Your task to perform on an android device: Open Reddit.com Image 0: 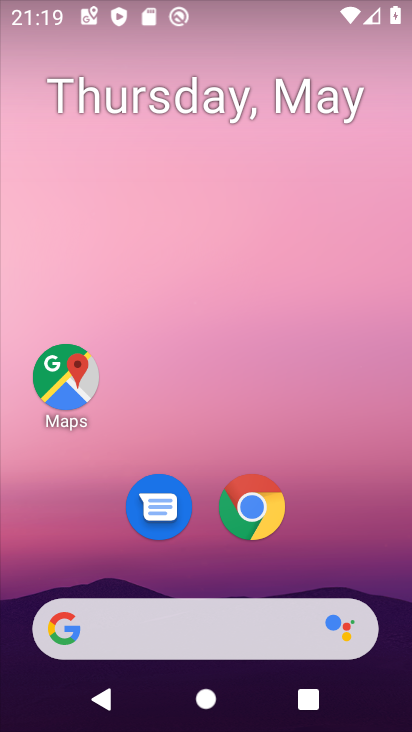
Step 0: drag from (247, 631) to (203, 370)
Your task to perform on an android device: Open Reddit.com Image 1: 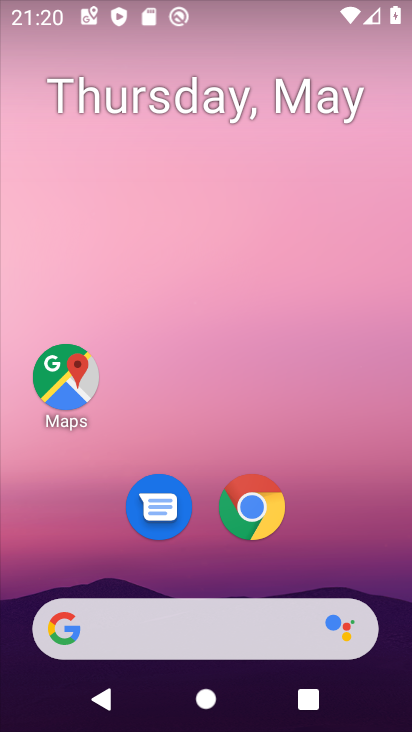
Step 1: drag from (226, 657) to (180, 330)
Your task to perform on an android device: Open Reddit.com Image 2: 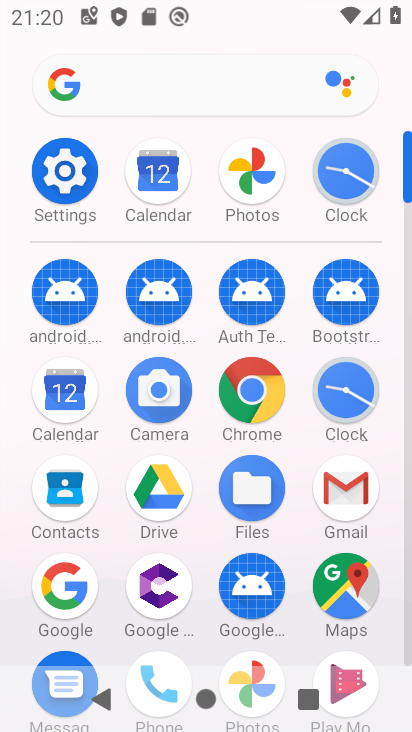
Step 2: click (270, 408)
Your task to perform on an android device: Open Reddit.com Image 3: 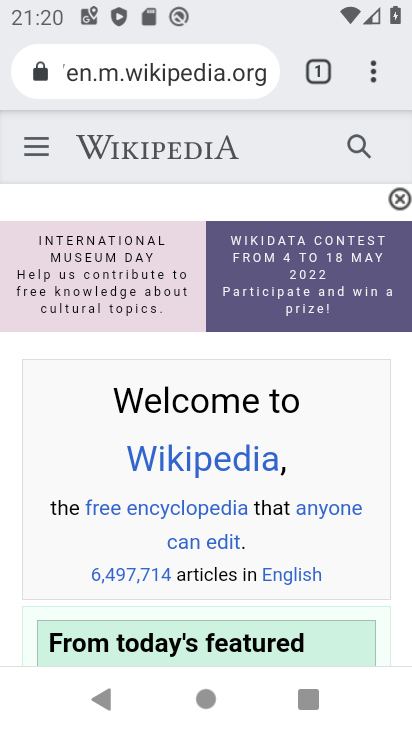
Step 3: click (151, 79)
Your task to perform on an android device: Open Reddit.com Image 4: 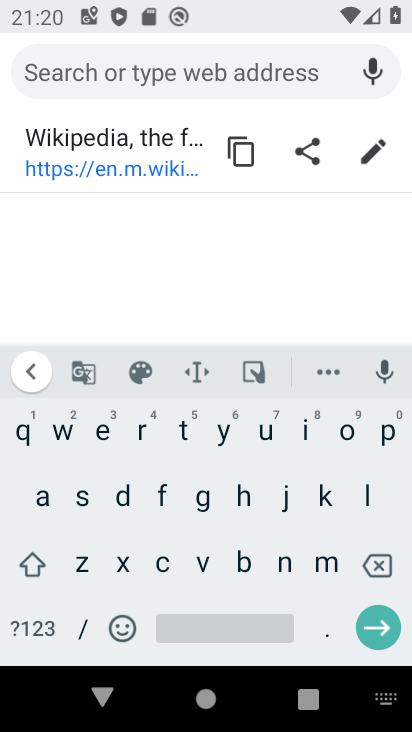
Step 4: click (140, 439)
Your task to perform on an android device: Open Reddit.com Image 5: 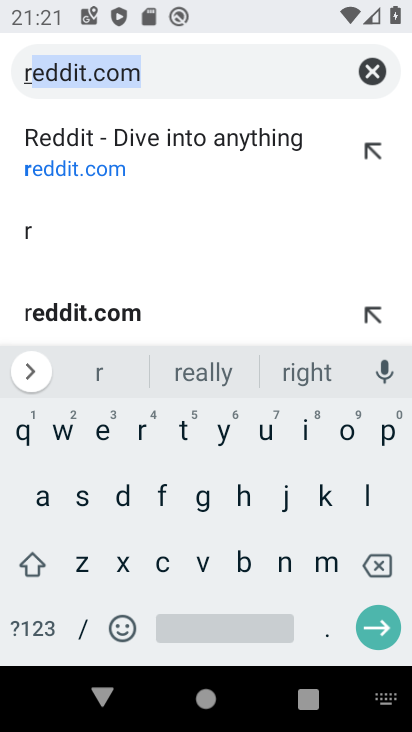
Step 5: click (175, 75)
Your task to perform on an android device: Open Reddit.com Image 6: 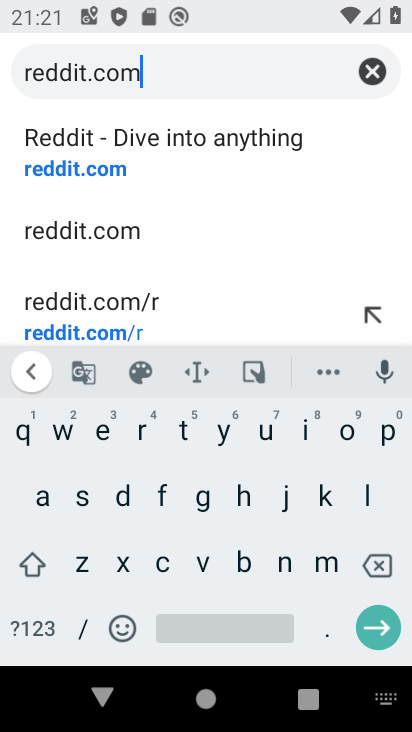
Step 6: click (386, 622)
Your task to perform on an android device: Open Reddit.com Image 7: 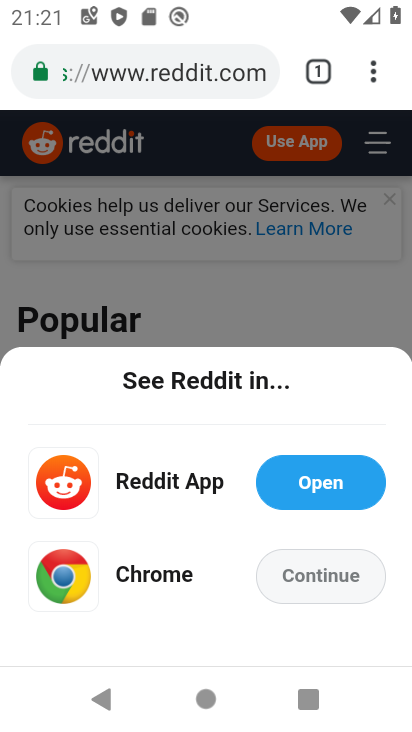
Step 7: click (318, 574)
Your task to perform on an android device: Open Reddit.com Image 8: 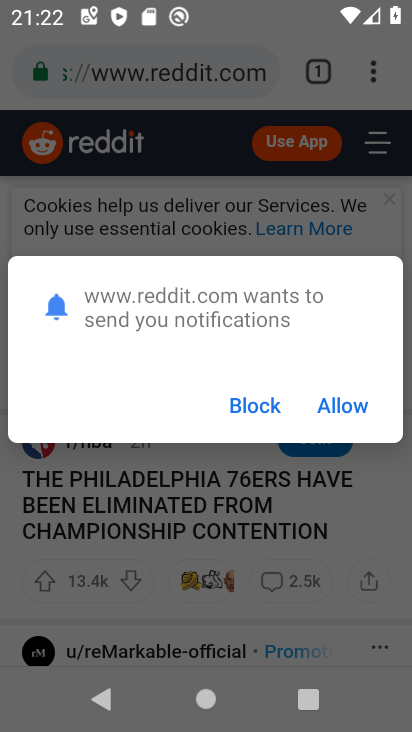
Step 8: click (236, 407)
Your task to perform on an android device: Open Reddit.com Image 9: 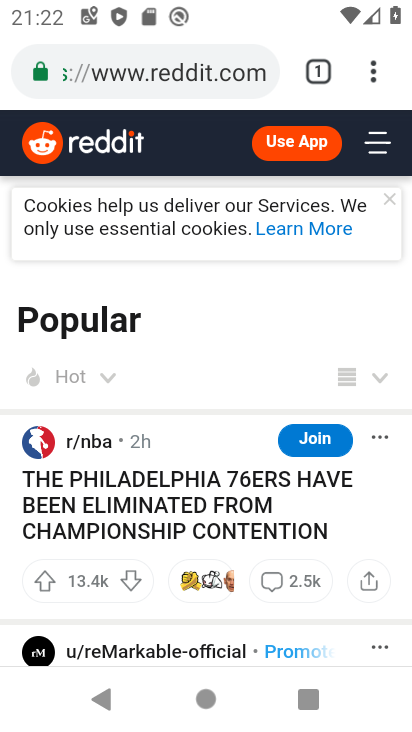
Step 9: task complete